Your task to perform on an android device: Look up the top rated 18v miter saw on Home Depot. Image 0: 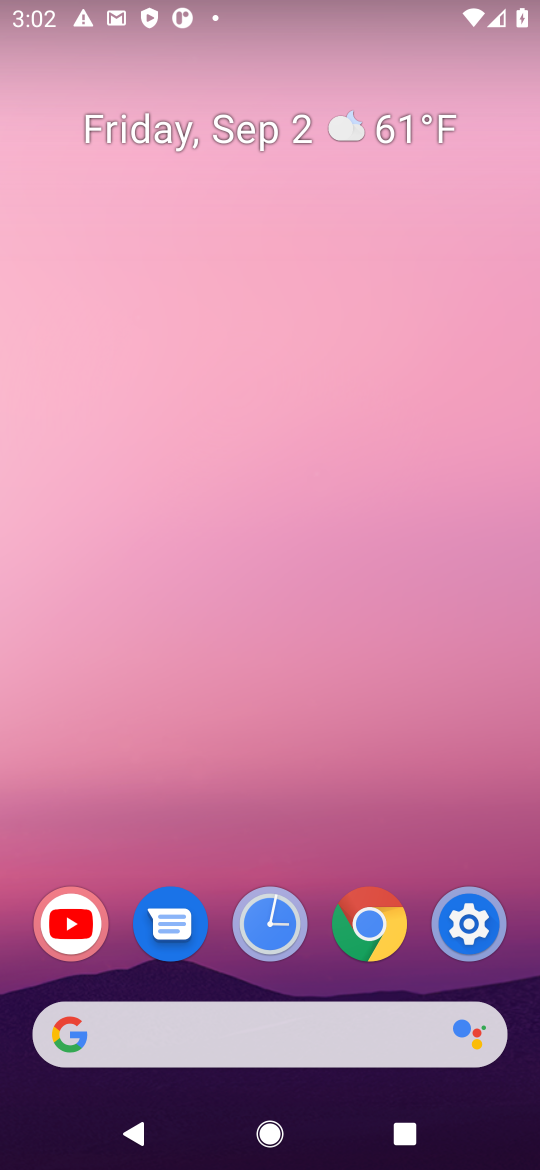
Step 0: press home button
Your task to perform on an android device: Look up the top rated 18v miter saw on Home Depot. Image 1: 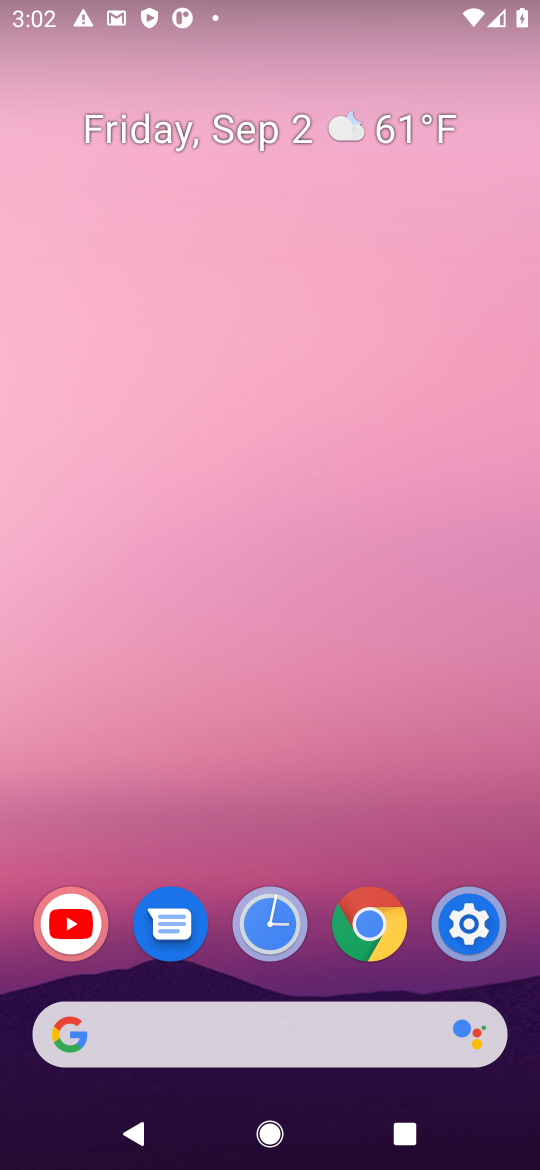
Step 1: click (363, 1022)
Your task to perform on an android device: Look up the top rated 18v miter saw on Home Depot. Image 2: 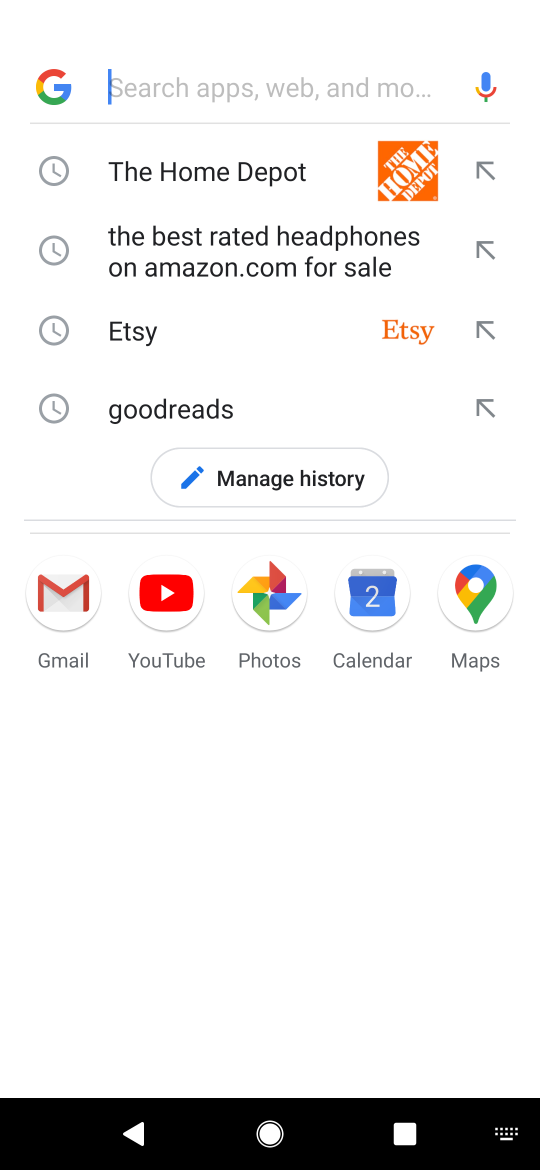
Step 2: click (272, 165)
Your task to perform on an android device: Look up the top rated 18v miter saw on Home Depot. Image 3: 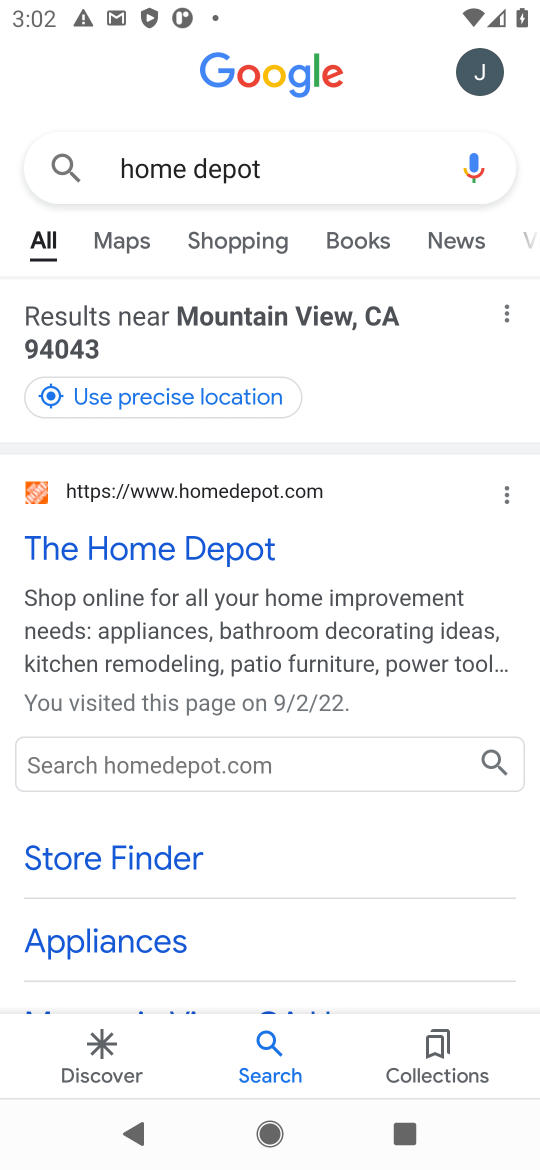
Step 3: click (218, 547)
Your task to perform on an android device: Look up the top rated 18v miter saw on Home Depot. Image 4: 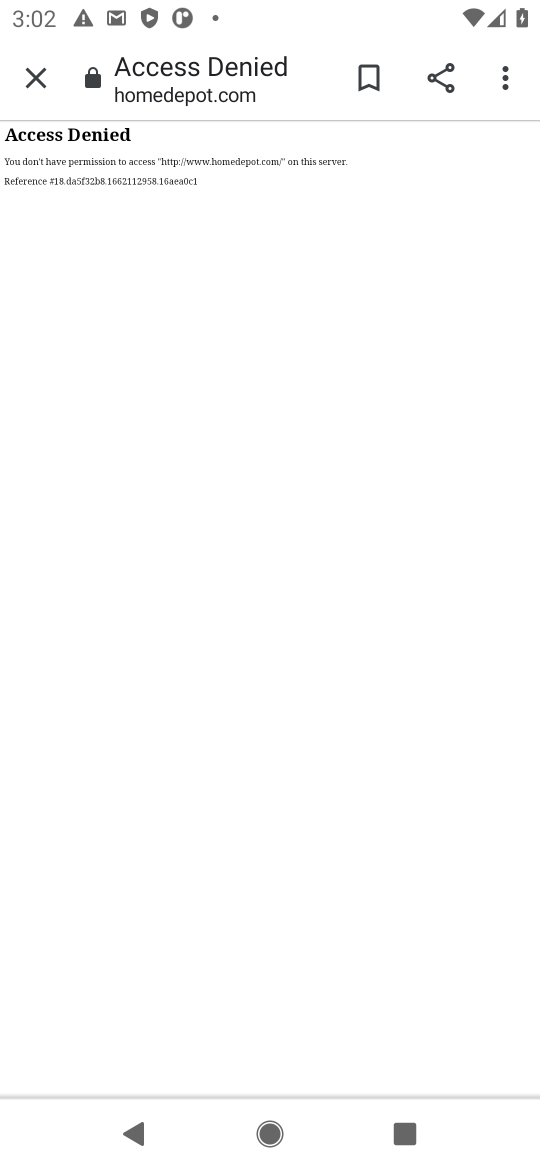
Step 4: task complete